Your task to perform on an android device: Is it going to rain this weekend? Image 0: 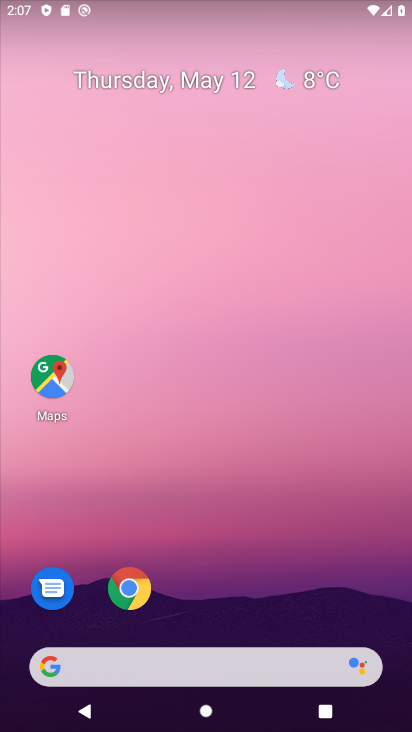
Step 0: drag from (292, 505) to (265, 0)
Your task to perform on an android device: Is it going to rain this weekend? Image 1: 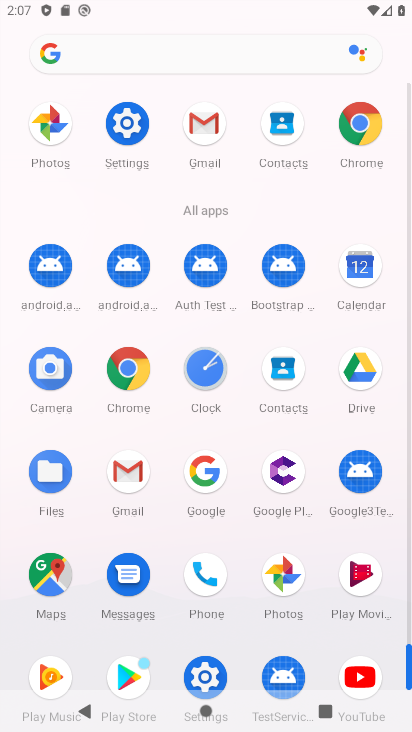
Step 1: drag from (14, 522) to (14, 180)
Your task to perform on an android device: Is it going to rain this weekend? Image 2: 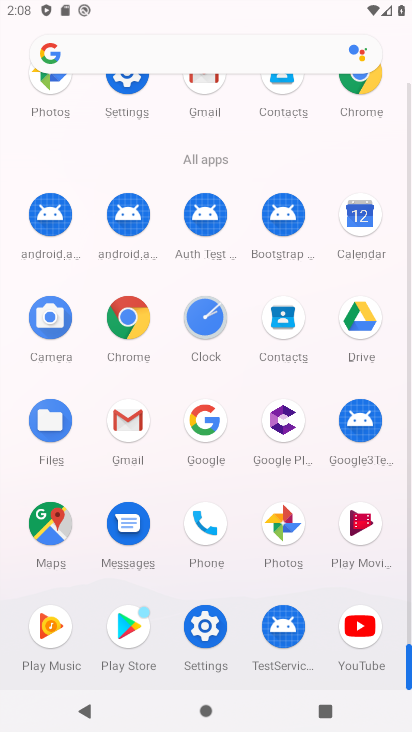
Step 2: click (127, 315)
Your task to perform on an android device: Is it going to rain this weekend? Image 3: 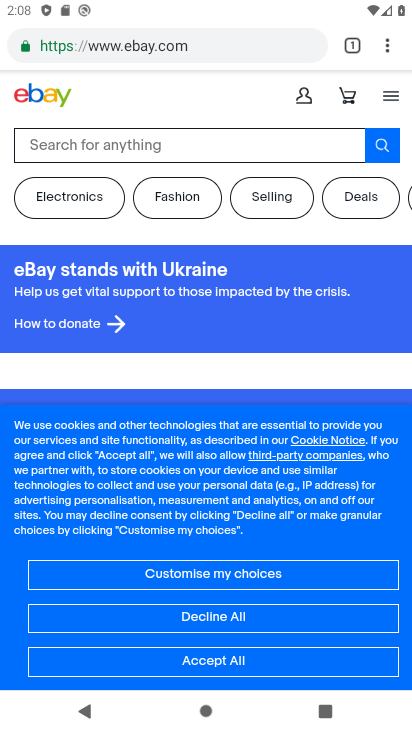
Step 3: click (177, 47)
Your task to perform on an android device: Is it going to rain this weekend? Image 4: 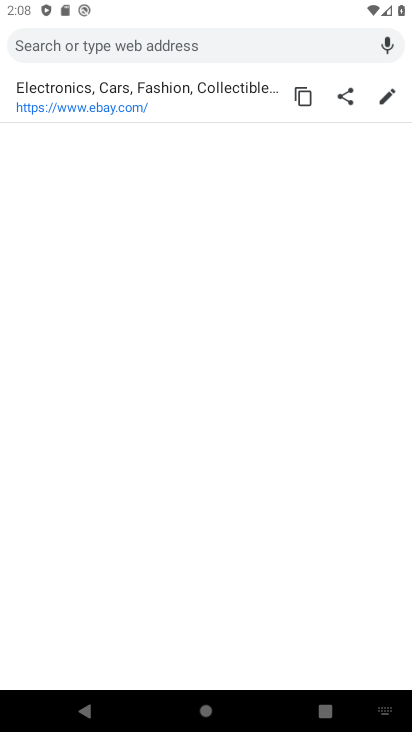
Step 4: type "Is it going to rain this weekend?"
Your task to perform on an android device: Is it going to rain this weekend? Image 5: 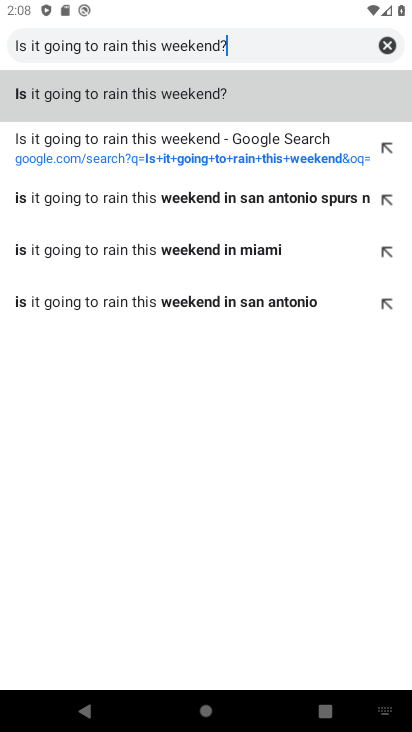
Step 5: click (118, 85)
Your task to perform on an android device: Is it going to rain this weekend? Image 6: 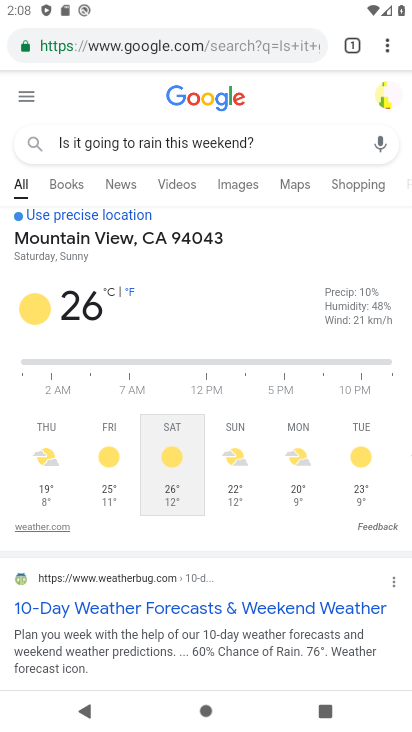
Step 6: task complete